Your task to perform on an android device: How much does a 3 bedroom apartment rent for in New York? Image 0: 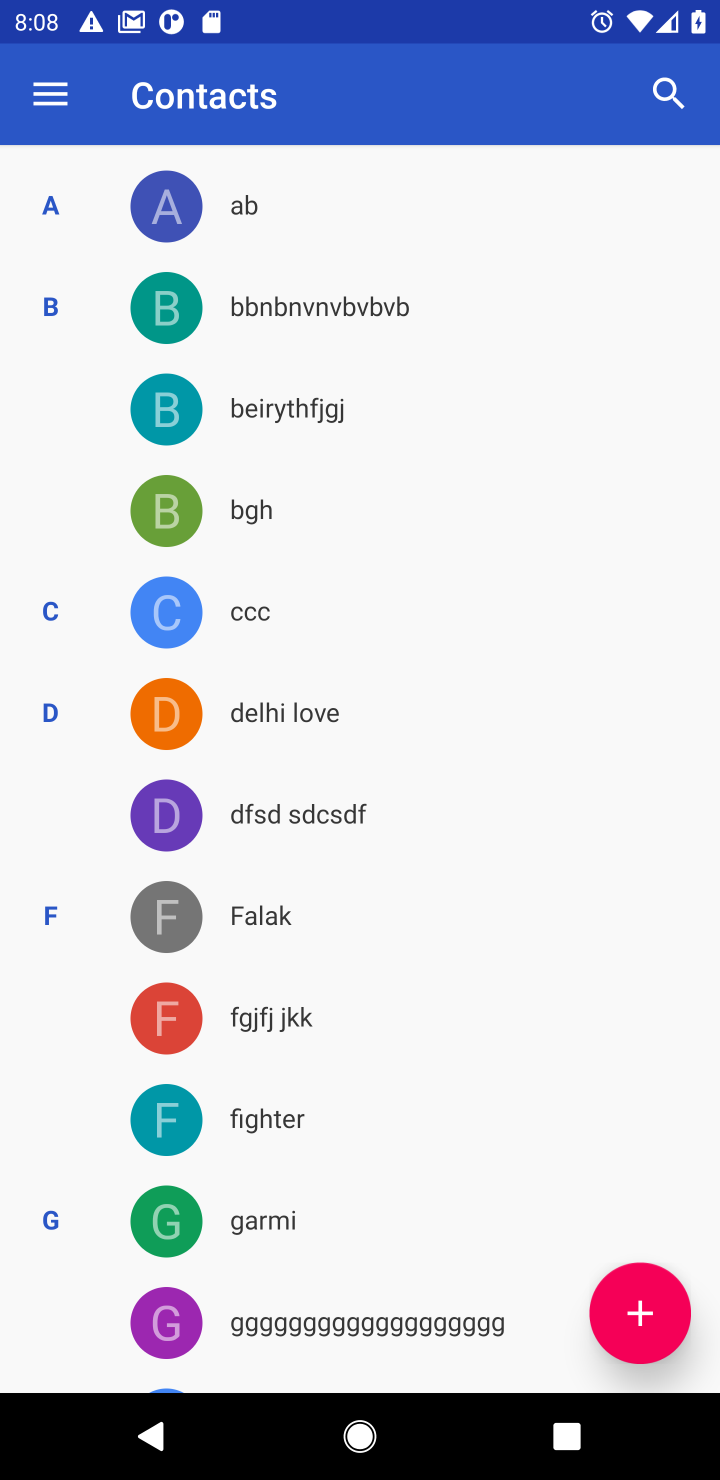
Step 0: press home button
Your task to perform on an android device: How much does a 3 bedroom apartment rent for in New York? Image 1: 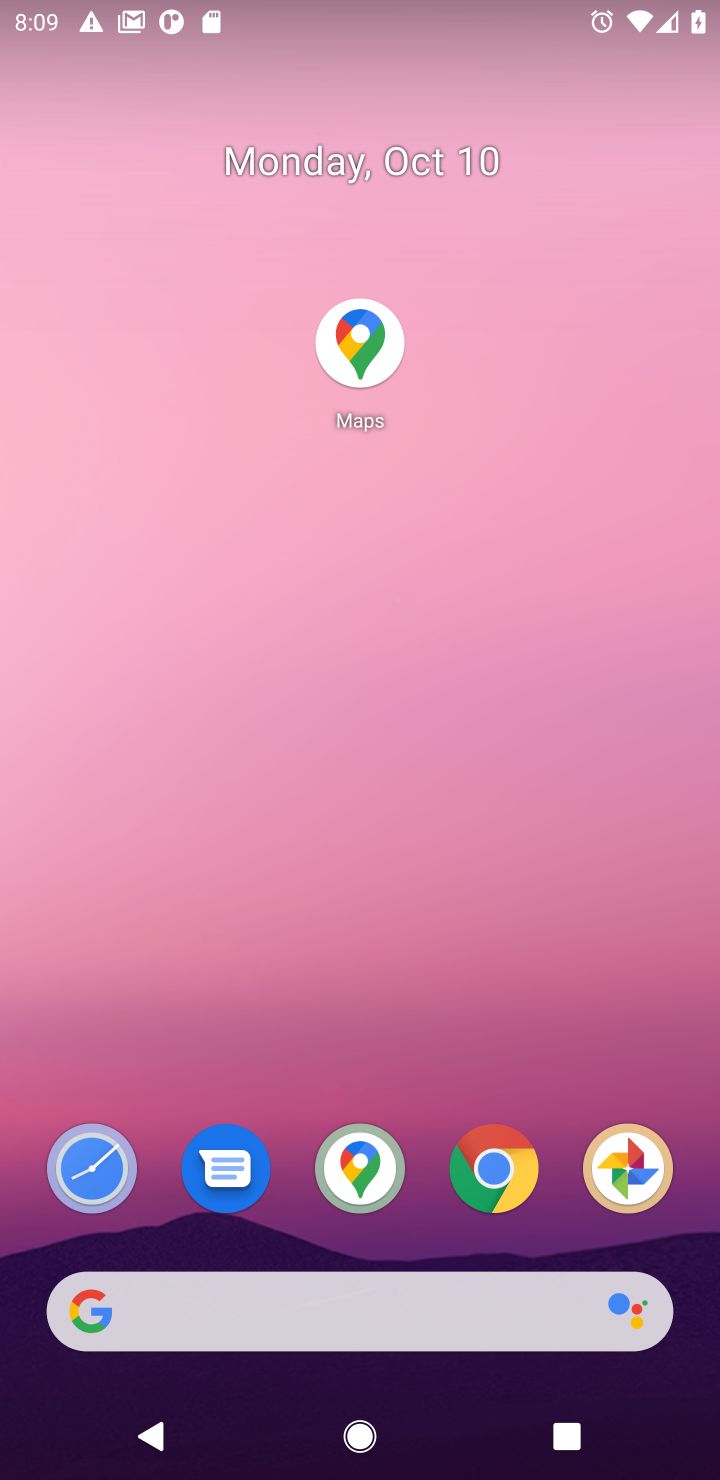
Step 1: click (469, 1189)
Your task to perform on an android device: How much does a 3 bedroom apartment rent for in New York? Image 2: 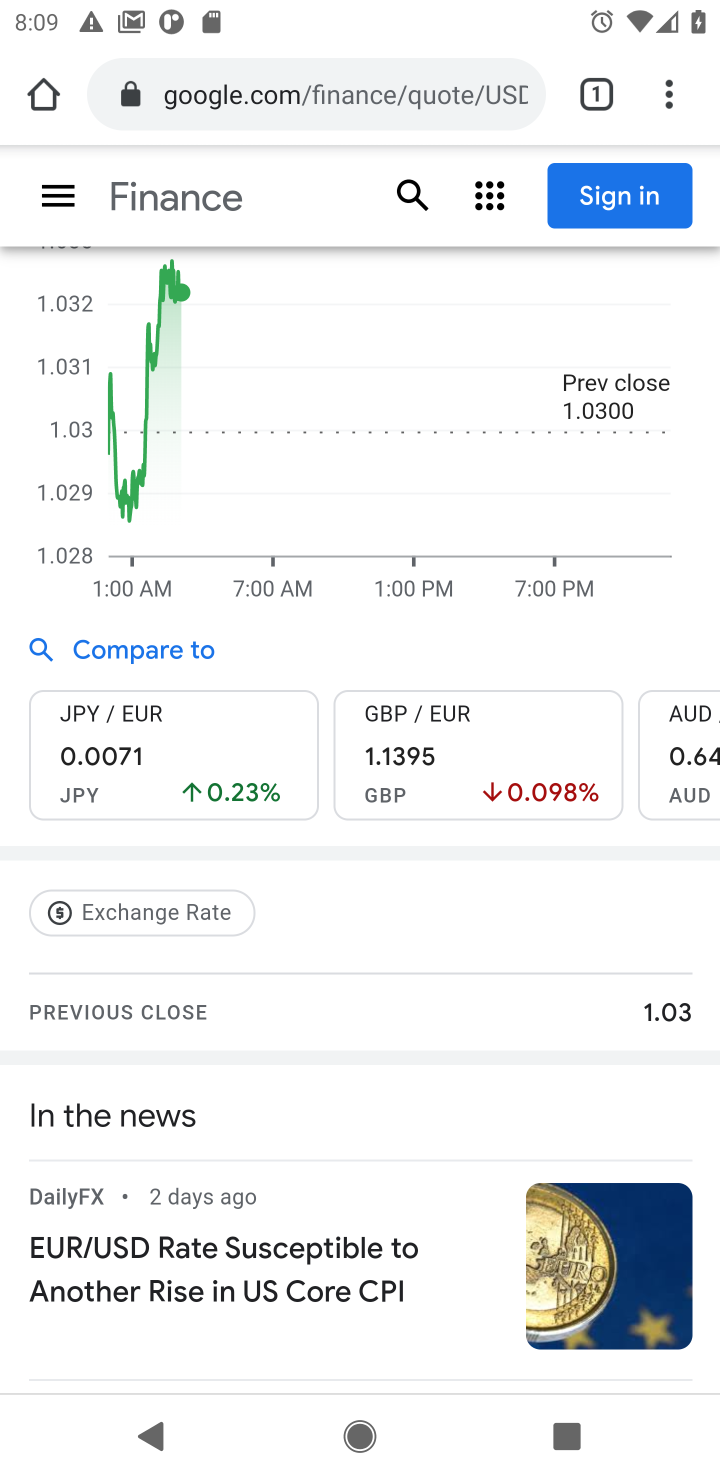
Step 2: click (288, 78)
Your task to perform on an android device: How much does a 3 bedroom apartment rent for in New York? Image 3: 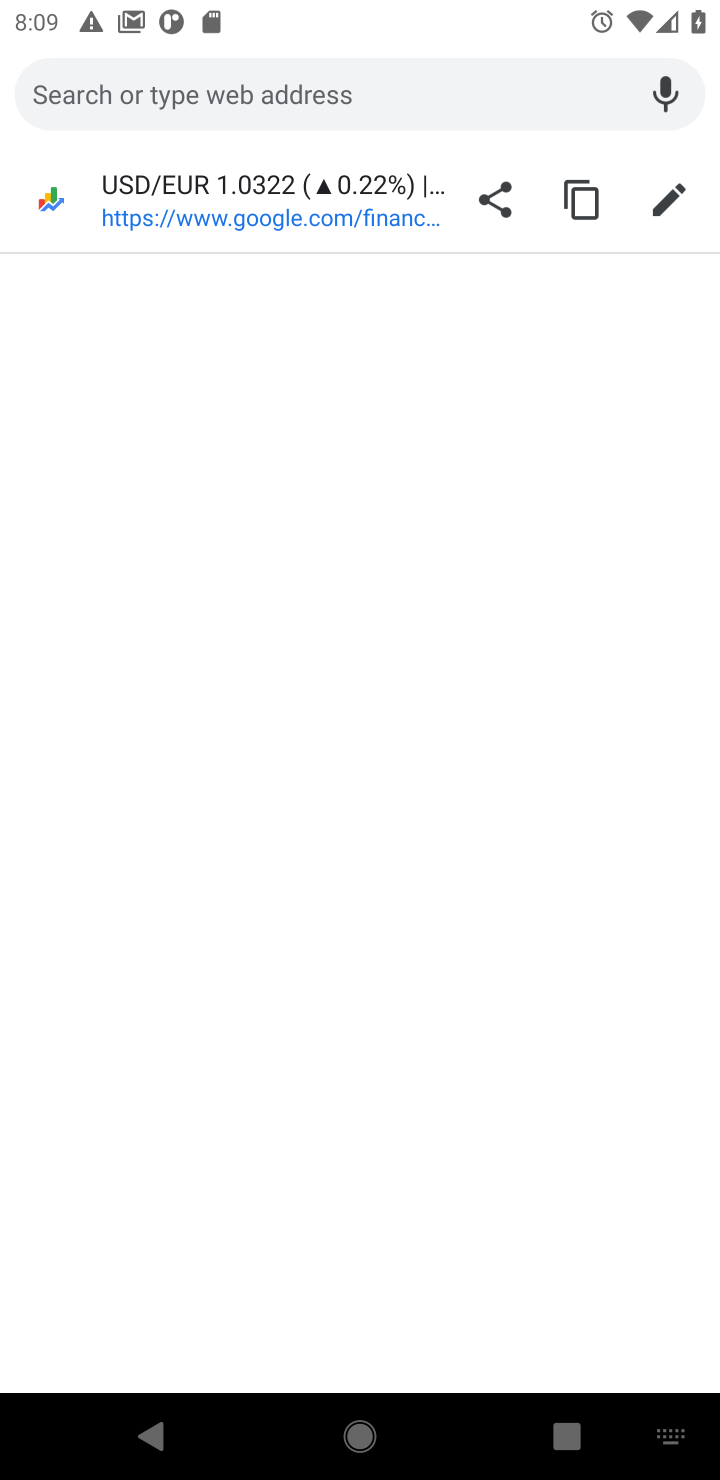
Step 3: type "rent for 3 bedroom apartment in new york"
Your task to perform on an android device: How much does a 3 bedroom apartment rent for in New York? Image 4: 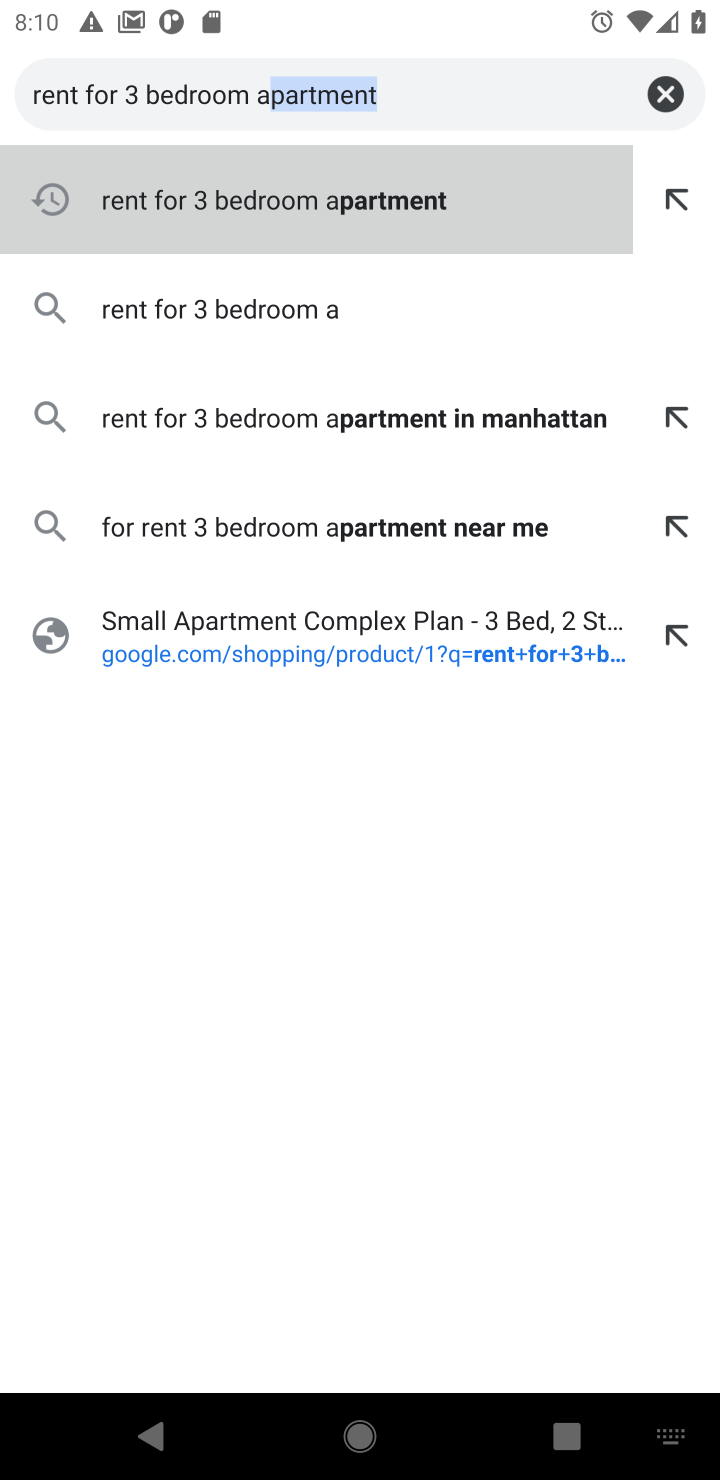
Step 4: click (396, 106)
Your task to perform on an android device: How much does a 3 bedroom apartment rent for in New York? Image 5: 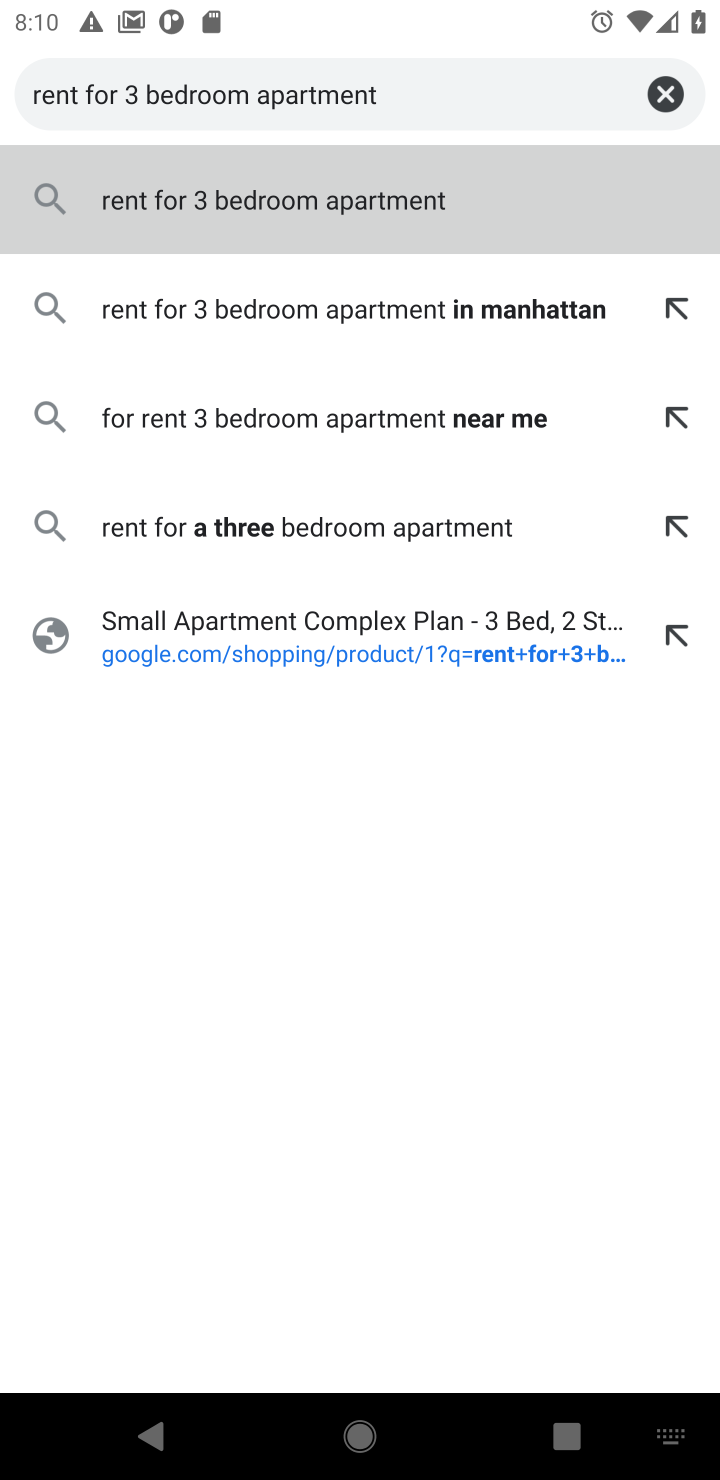
Step 5: type " in new york"
Your task to perform on an android device: How much does a 3 bedroom apartment rent for in New York? Image 6: 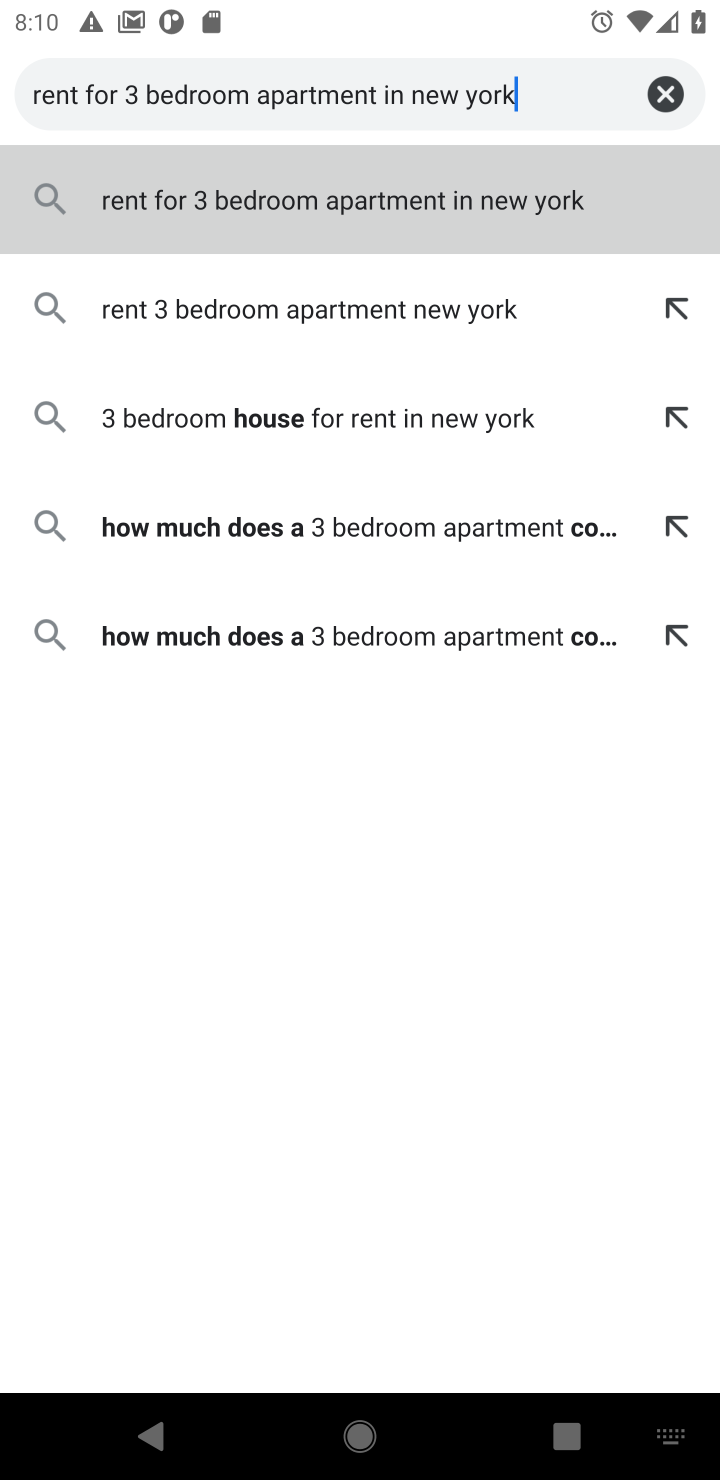
Step 6: click (369, 180)
Your task to perform on an android device: How much does a 3 bedroom apartment rent for in New York? Image 7: 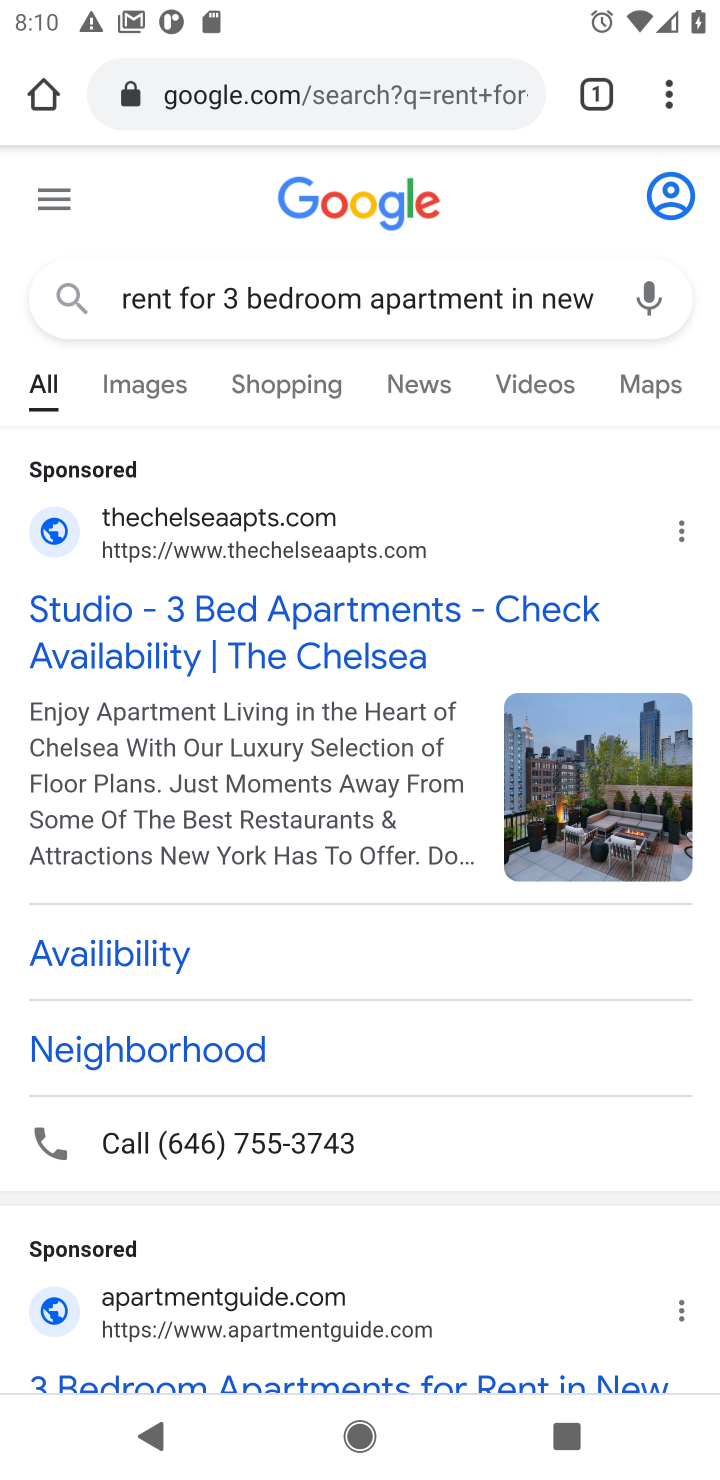
Step 7: click (133, 644)
Your task to perform on an android device: How much does a 3 bedroom apartment rent for in New York? Image 8: 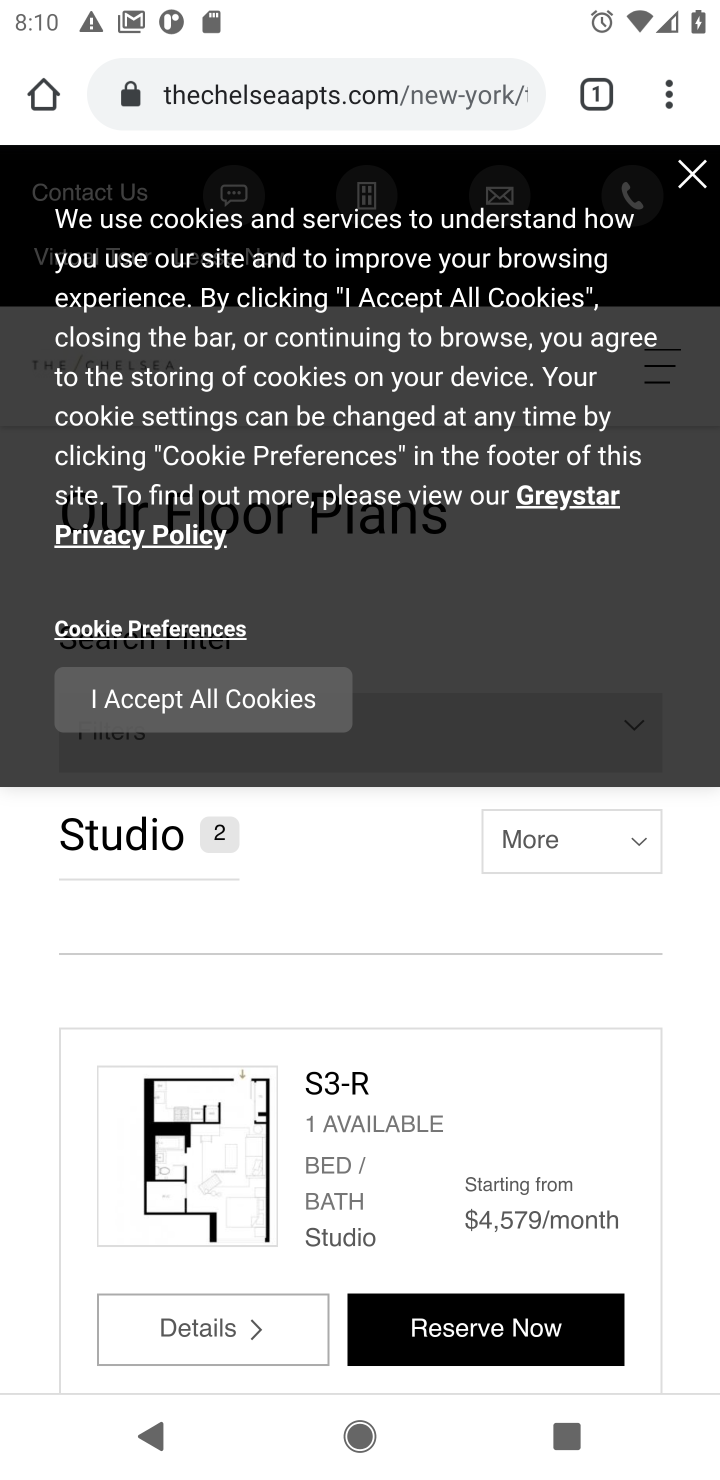
Step 8: task complete